Your task to perform on an android device: turn off notifications in google photos Image 0: 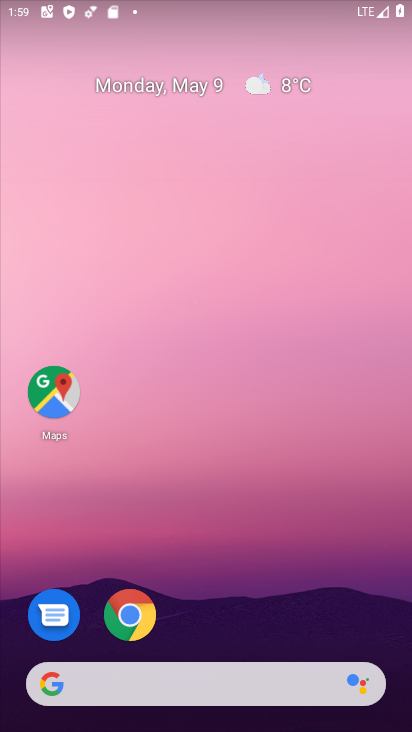
Step 0: drag from (361, 625) to (224, 96)
Your task to perform on an android device: turn off notifications in google photos Image 1: 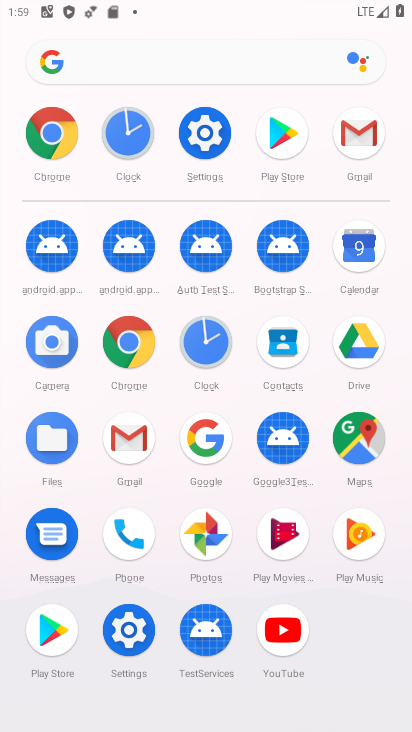
Step 1: click (206, 526)
Your task to perform on an android device: turn off notifications in google photos Image 2: 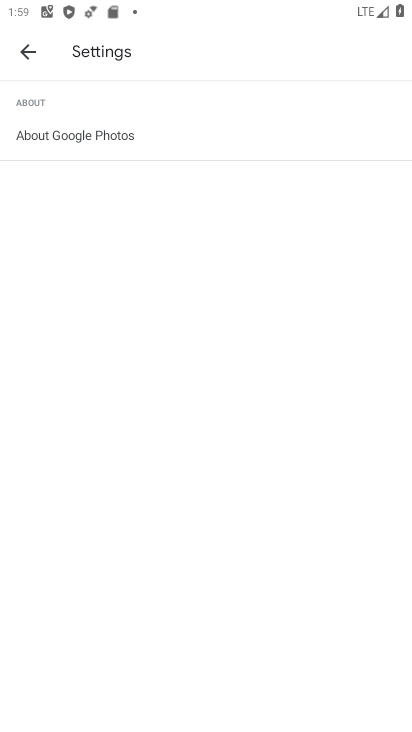
Step 2: press back button
Your task to perform on an android device: turn off notifications in google photos Image 3: 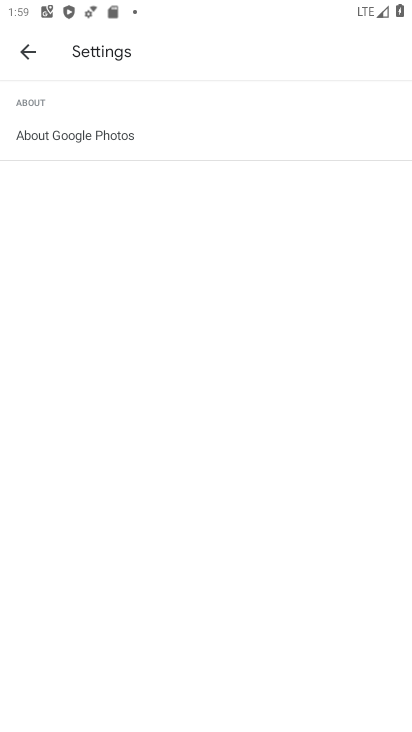
Step 3: press back button
Your task to perform on an android device: turn off notifications in google photos Image 4: 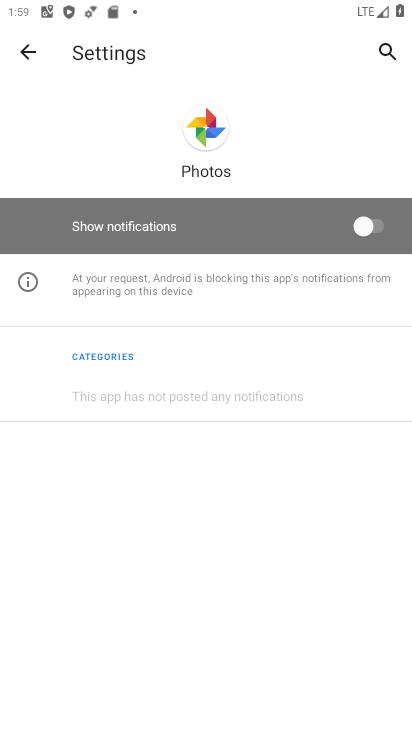
Step 4: press back button
Your task to perform on an android device: turn off notifications in google photos Image 5: 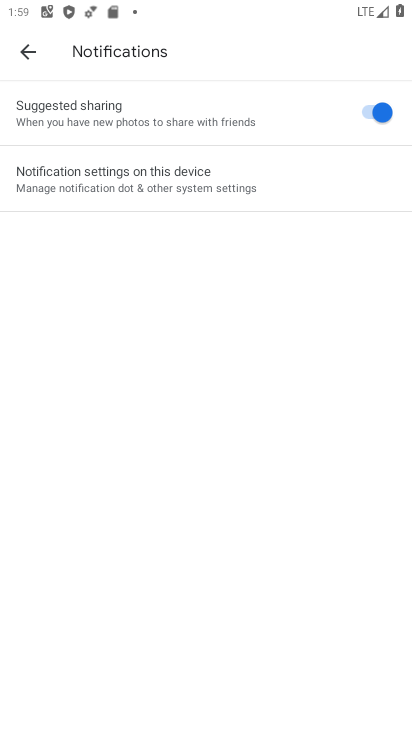
Step 5: press back button
Your task to perform on an android device: turn off notifications in google photos Image 6: 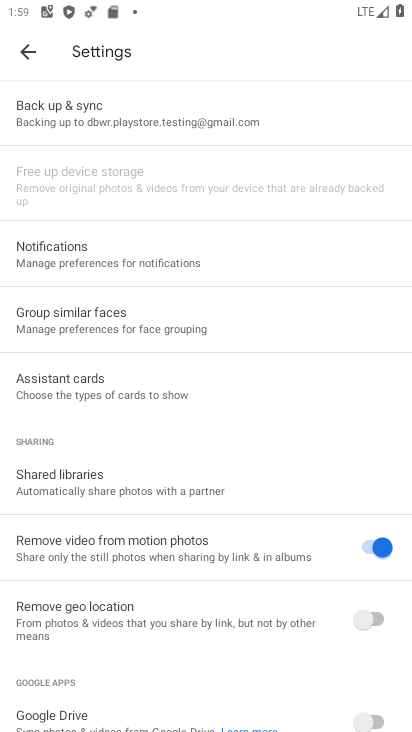
Step 6: click (75, 243)
Your task to perform on an android device: turn off notifications in google photos Image 7: 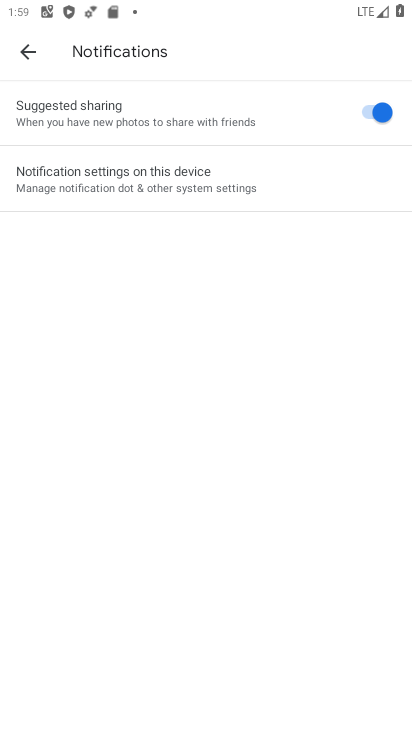
Step 7: click (104, 178)
Your task to perform on an android device: turn off notifications in google photos Image 8: 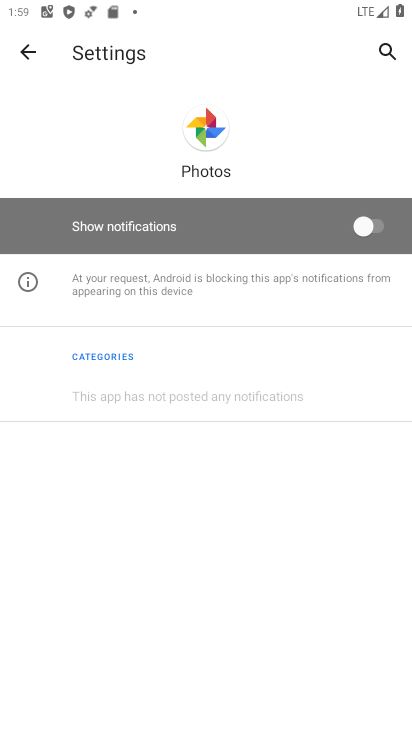
Step 8: task complete